Your task to perform on an android device: Go to ESPN.com Image 0: 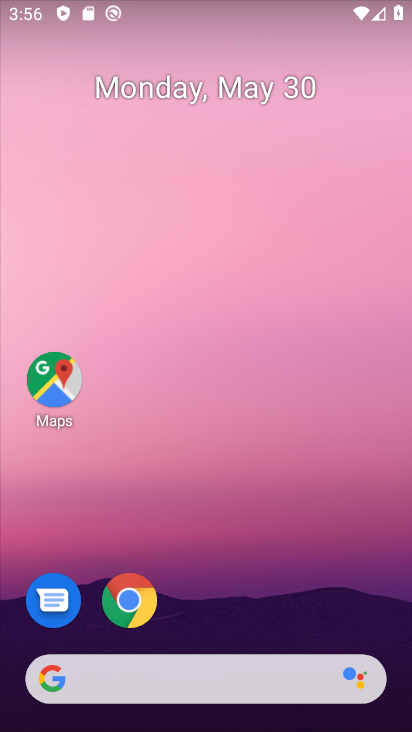
Step 0: drag from (236, 623) to (173, 317)
Your task to perform on an android device: Go to ESPN.com Image 1: 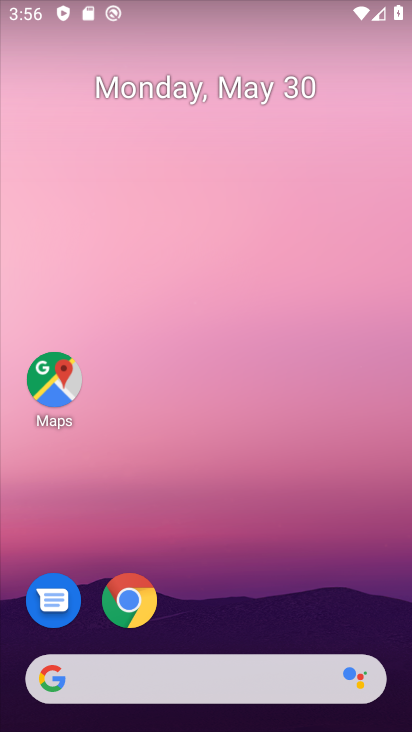
Step 1: click (143, 598)
Your task to perform on an android device: Go to ESPN.com Image 2: 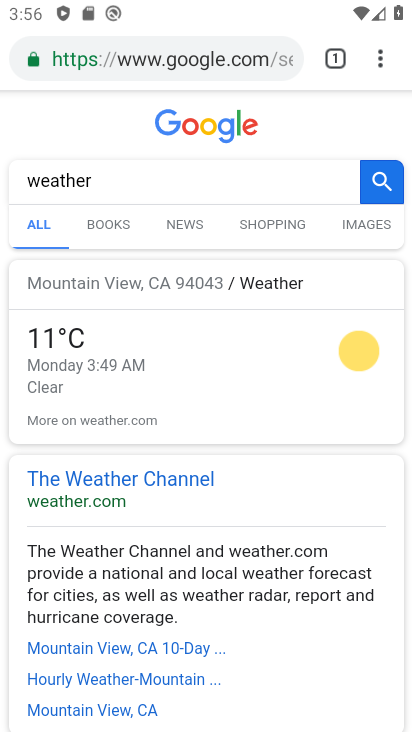
Step 2: click (153, 174)
Your task to perform on an android device: Go to ESPN.com Image 3: 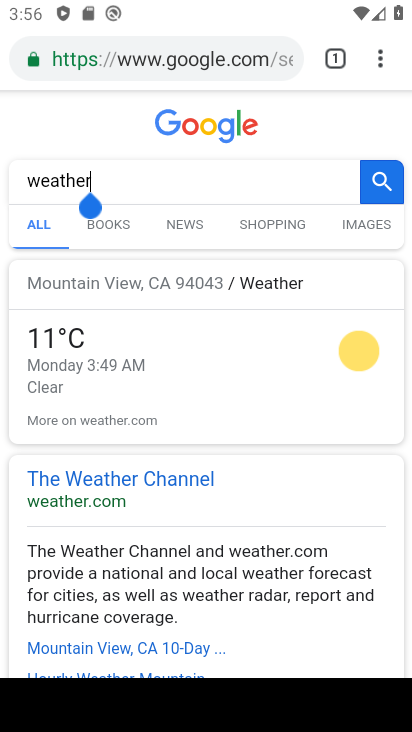
Step 3: click (143, 66)
Your task to perform on an android device: Go to ESPN.com Image 4: 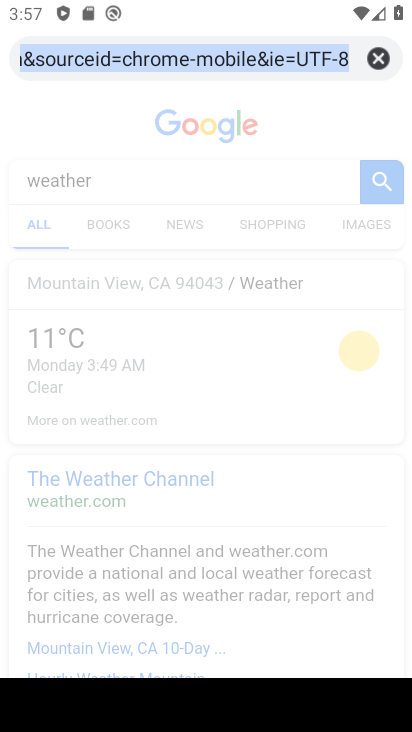
Step 4: type "espn.com"
Your task to perform on an android device: Go to ESPN.com Image 5: 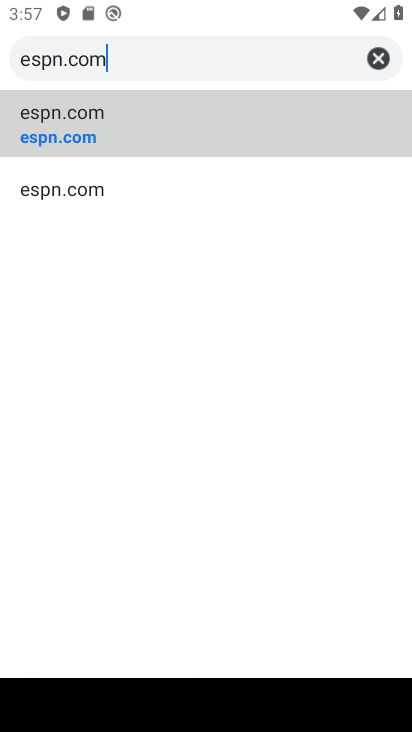
Step 5: click (58, 129)
Your task to perform on an android device: Go to ESPN.com Image 6: 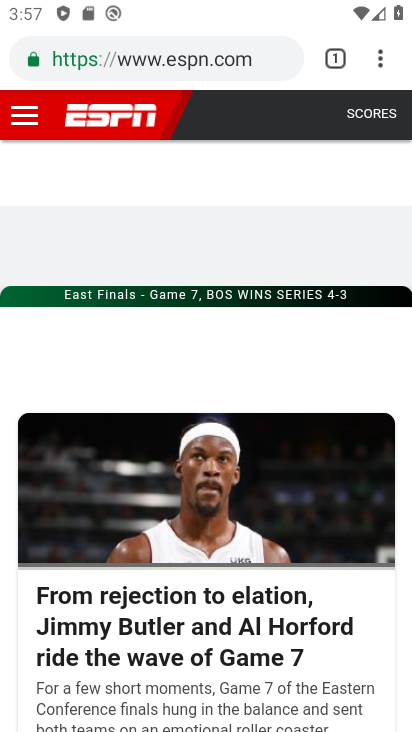
Step 6: task complete